Your task to perform on an android device: check out phone information Image 0: 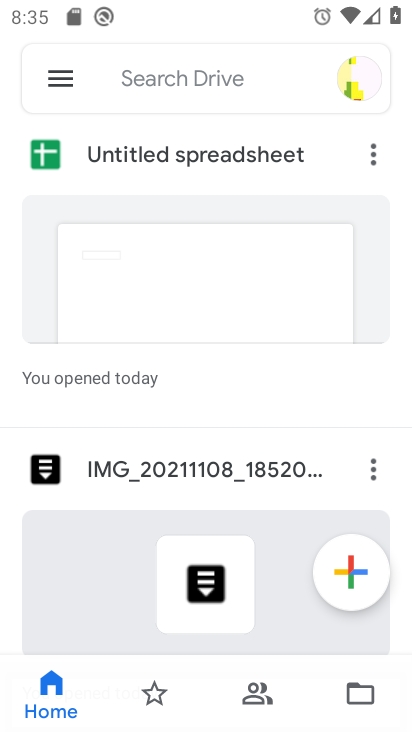
Step 0: press home button
Your task to perform on an android device: check out phone information Image 1: 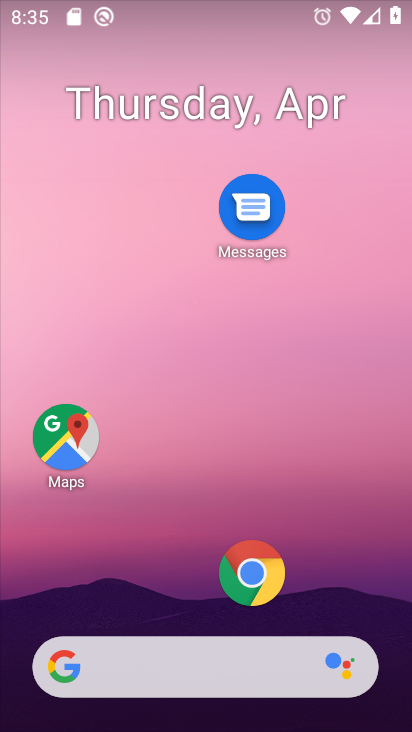
Step 1: drag from (192, 599) to (229, 0)
Your task to perform on an android device: check out phone information Image 2: 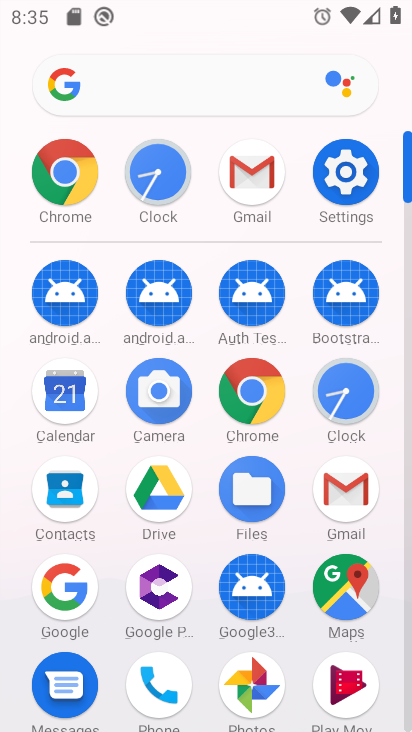
Step 2: drag from (198, 644) to (214, 213)
Your task to perform on an android device: check out phone information Image 3: 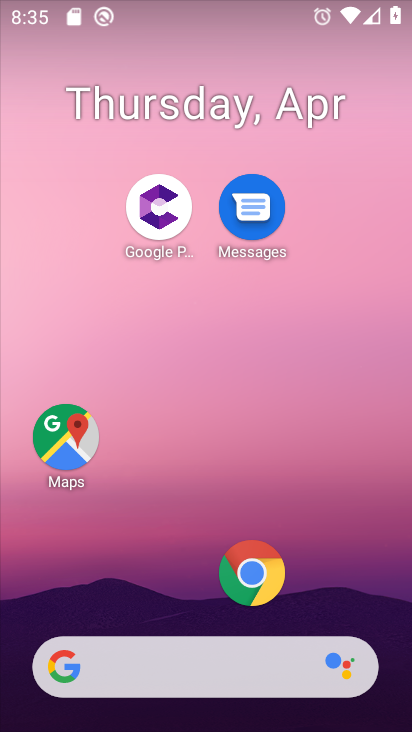
Step 3: drag from (309, 595) to (346, 91)
Your task to perform on an android device: check out phone information Image 4: 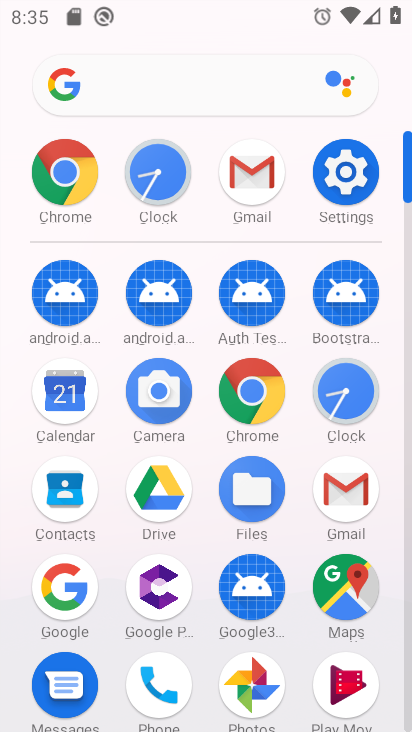
Step 4: drag from (203, 550) to (201, 148)
Your task to perform on an android device: check out phone information Image 5: 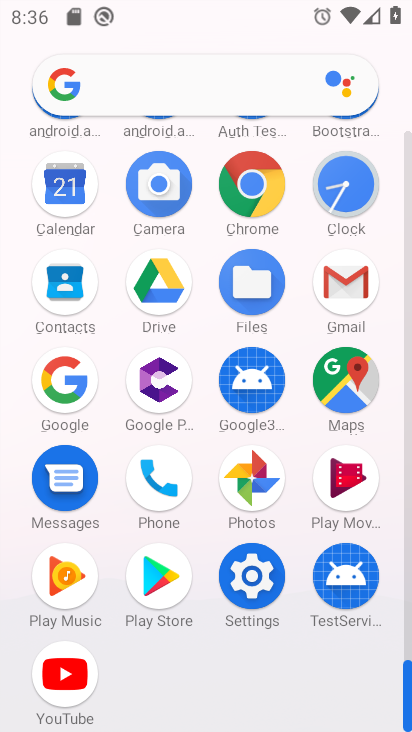
Step 5: click (250, 569)
Your task to perform on an android device: check out phone information Image 6: 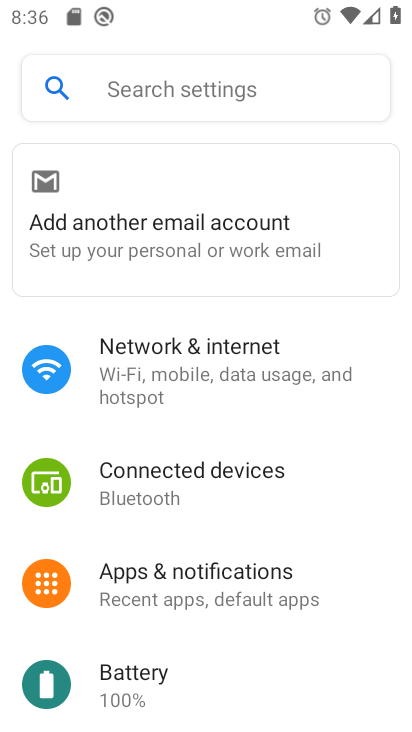
Step 6: drag from (199, 636) to (255, 114)
Your task to perform on an android device: check out phone information Image 7: 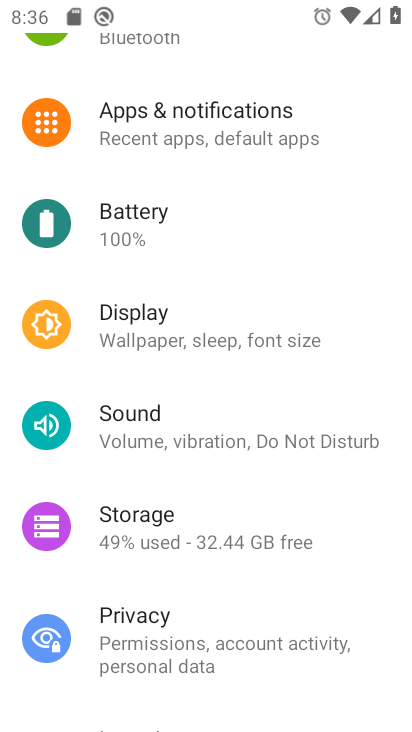
Step 7: drag from (232, 690) to (256, 103)
Your task to perform on an android device: check out phone information Image 8: 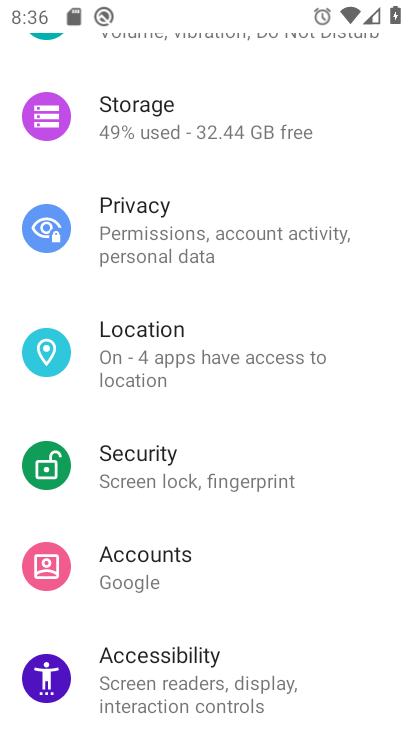
Step 8: drag from (248, 682) to (319, 64)
Your task to perform on an android device: check out phone information Image 9: 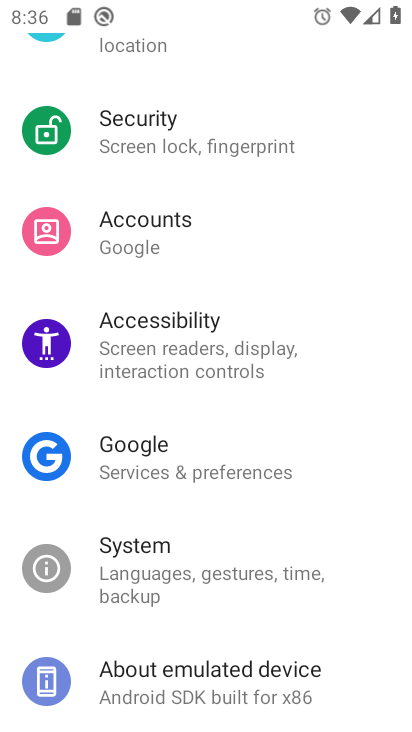
Step 9: click (317, 683)
Your task to perform on an android device: check out phone information Image 10: 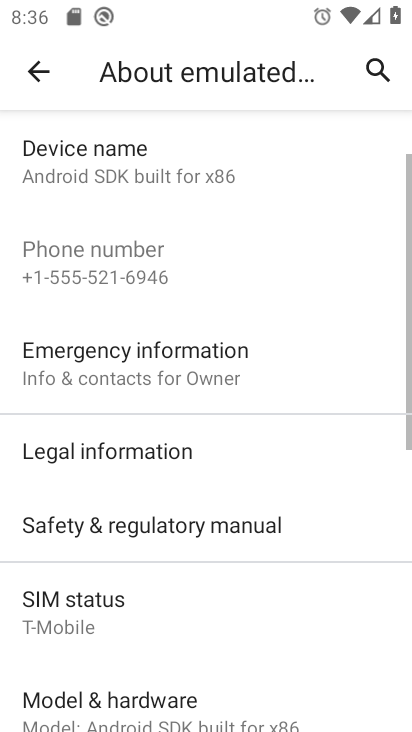
Step 10: task complete